Your task to perform on an android device: Search for the new steph curry shoes on Amazon. Image 0: 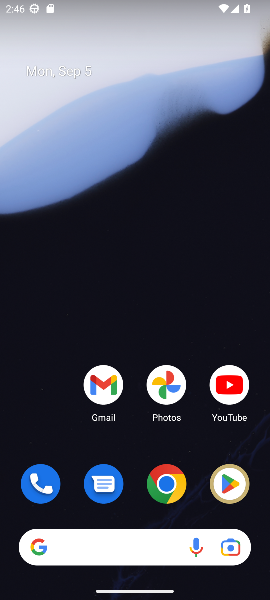
Step 0: click (167, 483)
Your task to perform on an android device: Search for the new steph curry shoes on Amazon. Image 1: 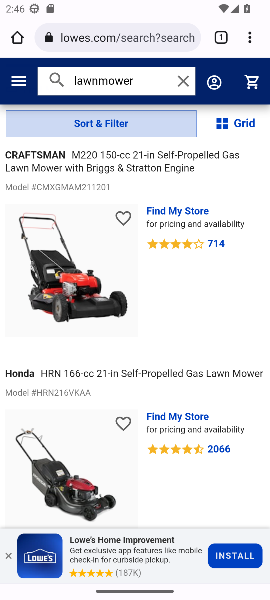
Step 1: click (161, 40)
Your task to perform on an android device: Search for the new steph curry shoes on Amazon. Image 2: 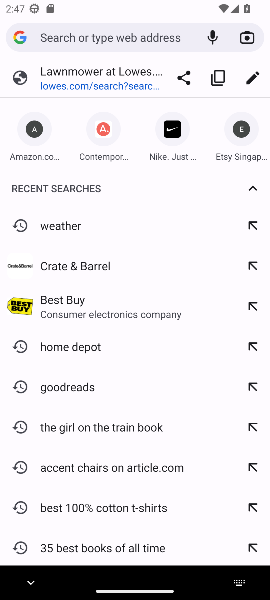
Step 2: type "Amazon"
Your task to perform on an android device: Search for the new steph curry shoes on Amazon. Image 3: 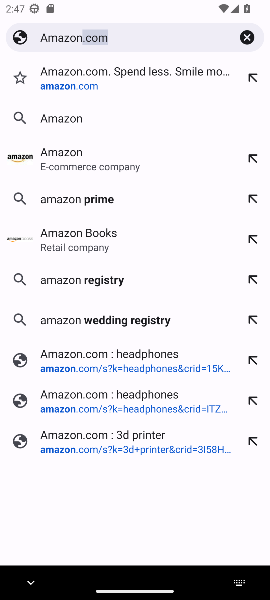
Step 3: click (65, 82)
Your task to perform on an android device: Search for the new steph curry shoes on Amazon. Image 4: 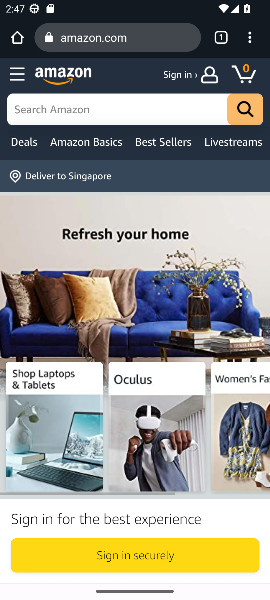
Step 4: click (125, 111)
Your task to perform on an android device: Search for the new steph curry shoes on Amazon. Image 5: 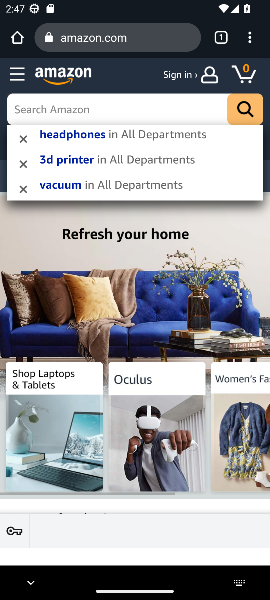
Step 5: press enter
Your task to perform on an android device: Search for the new steph curry shoes on Amazon. Image 6: 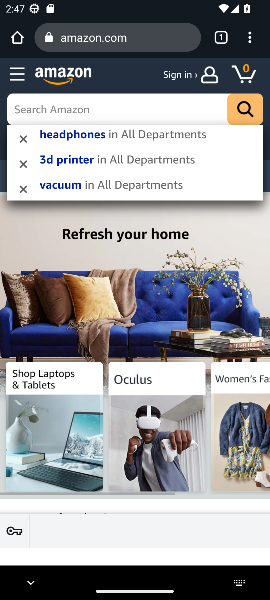
Step 6: type "steph curry shoes"
Your task to perform on an android device: Search for the new steph curry shoes on Amazon. Image 7: 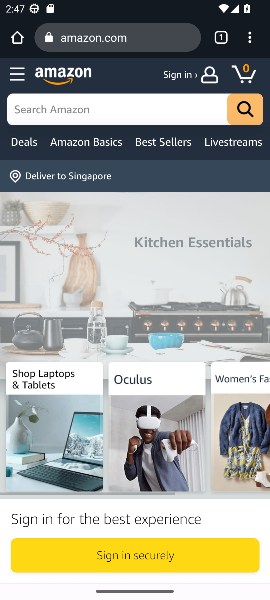
Step 7: click (118, 106)
Your task to perform on an android device: Search for the new steph curry shoes on Amazon. Image 8: 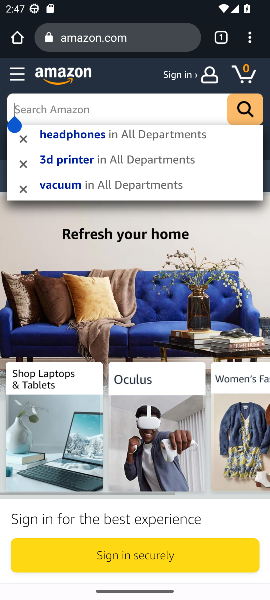
Step 8: type "steph curry shoes"
Your task to perform on an android device: Search for the new steph curry shoes on Amazon. Image 9: 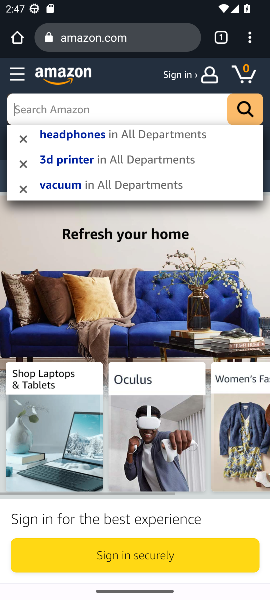
Step 9: press enter
Your task to perform on an android device: Search for the new steph curry shoes on Amazon. Image 10: 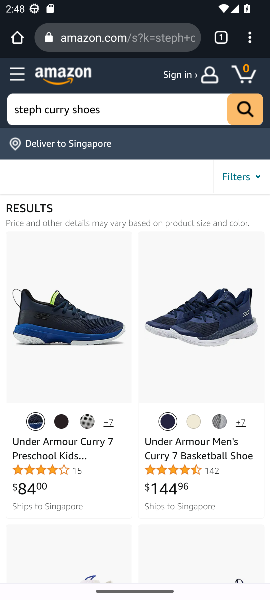
Step 10: task complete